Your task to perform on an android device: Go to sound settings Image 0: 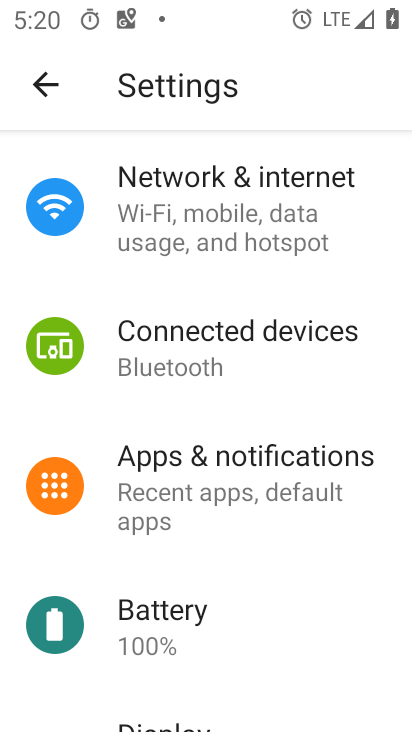
Step 0: press home button
Your task to perform on an android device: Go to sound settings Image 1: 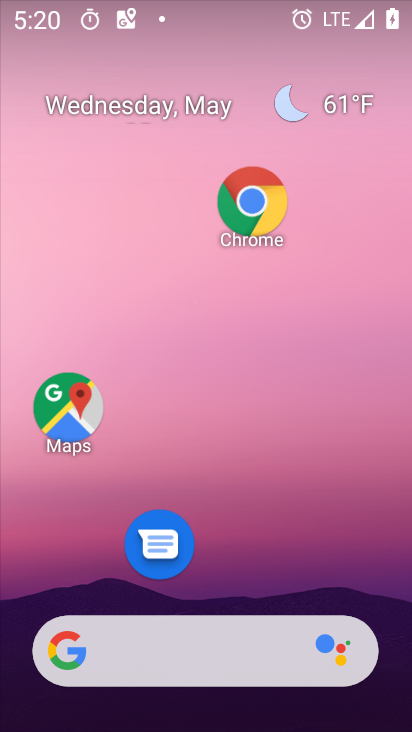
Step 1: drag from (235, 515) to (272, 139)
Your task to perform on an android device: Go to sound settings Image 2: 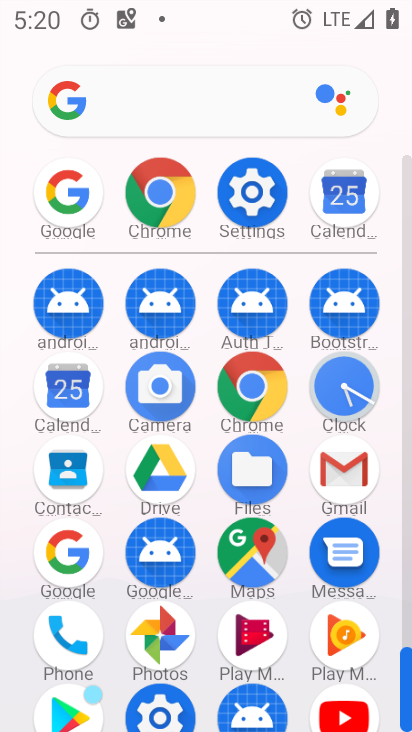
Step 2: click (258, 208)
Your task to perform on an android device: Go to sound settings Image 3: 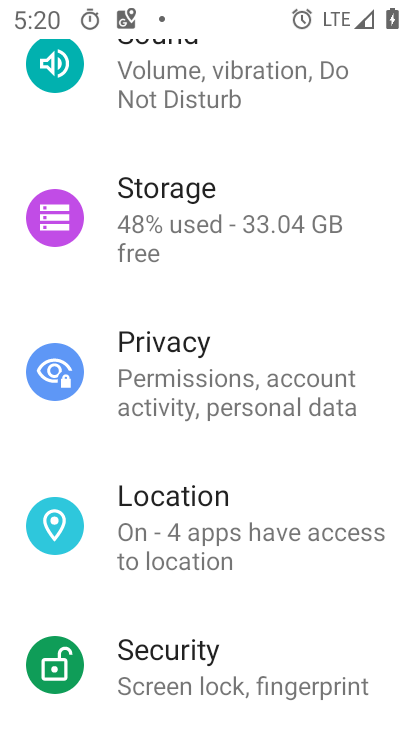
Step 3: drag from (242, 678) to (267, 340)
Your task to perform on an android device: Go to sound settings Image 4: 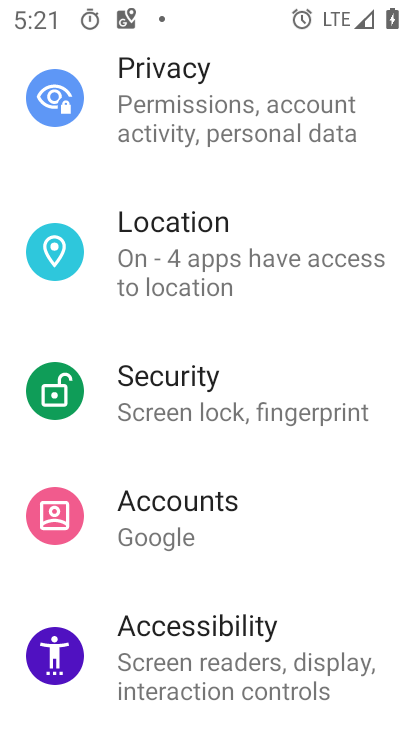
Step 4: drag from (275, 136) to (260, 580)
Your task to perform on an android device: Go to sound settings Image 5: 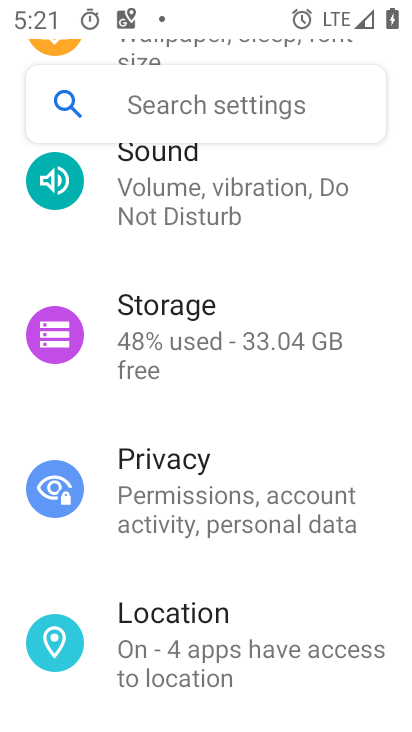
Step 5: drag from (265, 174) to (277, 491)
Your task to perform on an android device: Go to sound settings Image 6: 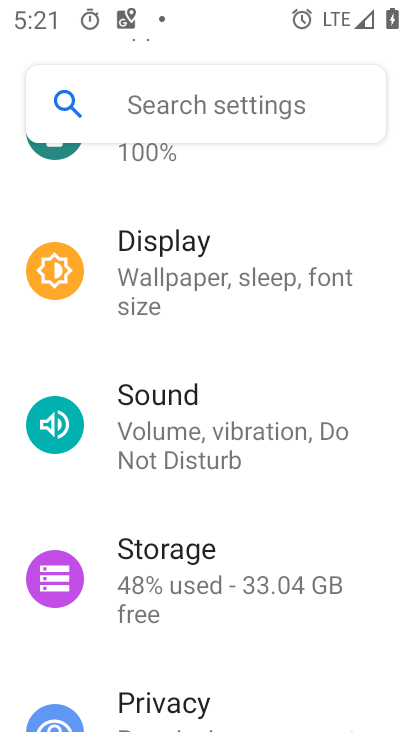
Step 6: click (163, 423)
Your task to perform on an android device: Go to sound settings Image 7: 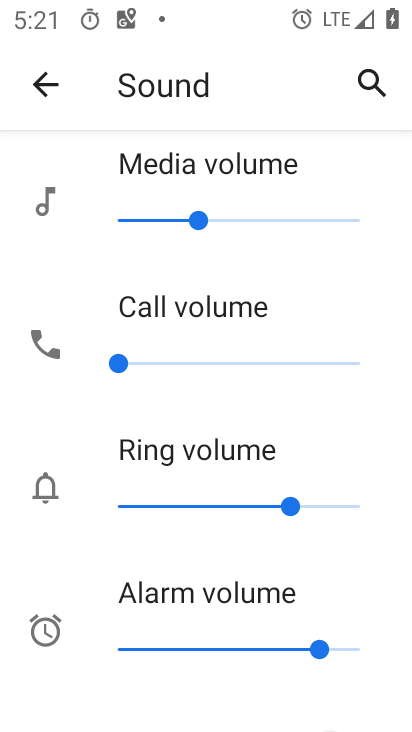
Step 7: task complete